Your task to perform on an android device: toggle data saver in the chrome app Image 0: 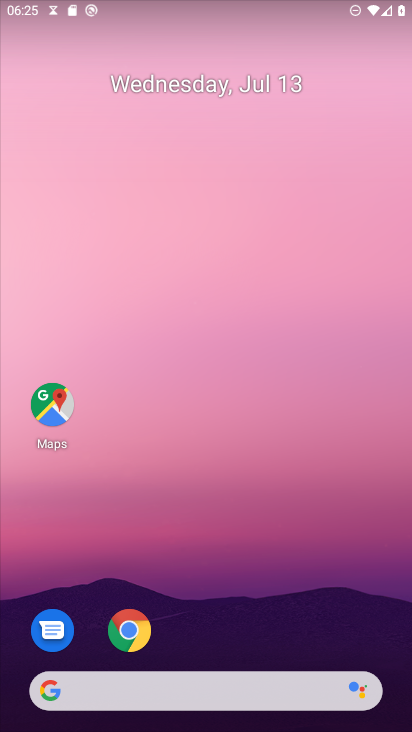
Step 0: drag from (329, 590) to (387, 45)
Your task to perform on an android device: toggle data saver in the chrome app Image 1: 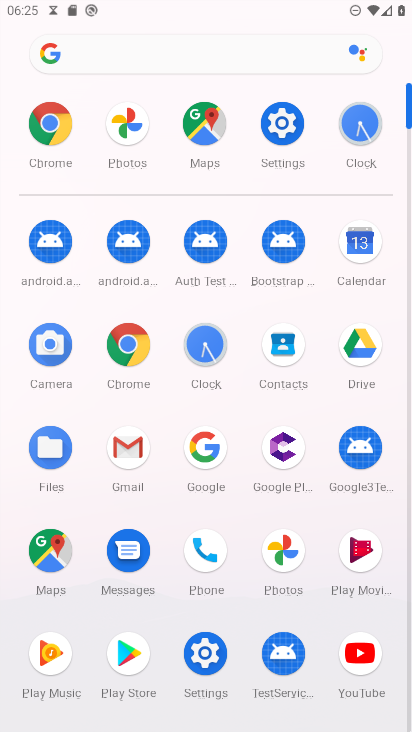
Step 1: click (140, 347)
Your task to perform on an android device: toggle data saver in the chrome app Image 2: 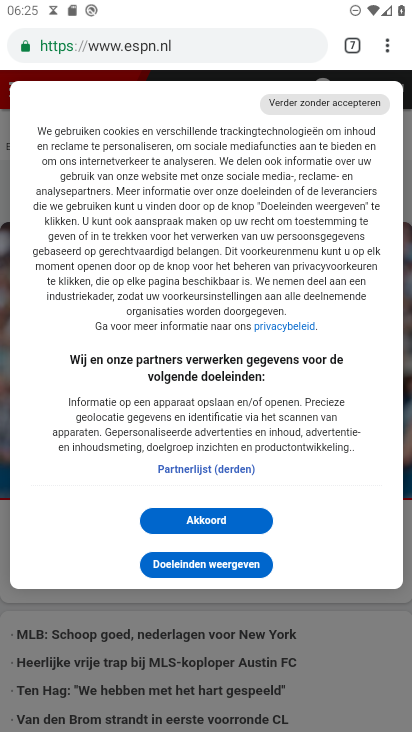
Step 2: drag from (389, 47) to (227, 546)
Your task to perform on an android device: toggle data saver in the chrome app Image 3: 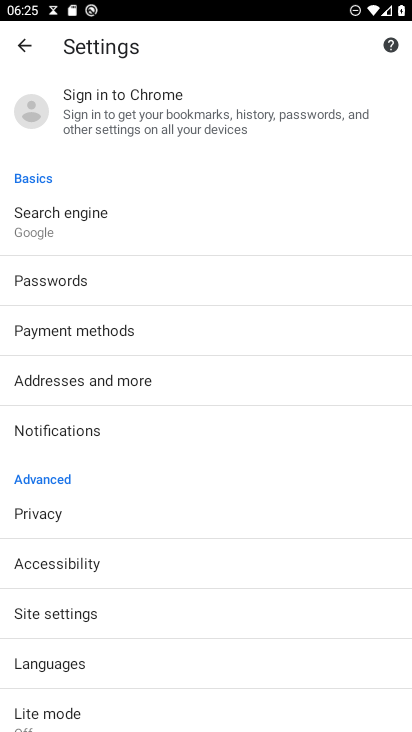
Step 3: drag from (93, 652) to (104, 443)
Your task to perform on an android device: toggle data saver in the chrome app Image 4: 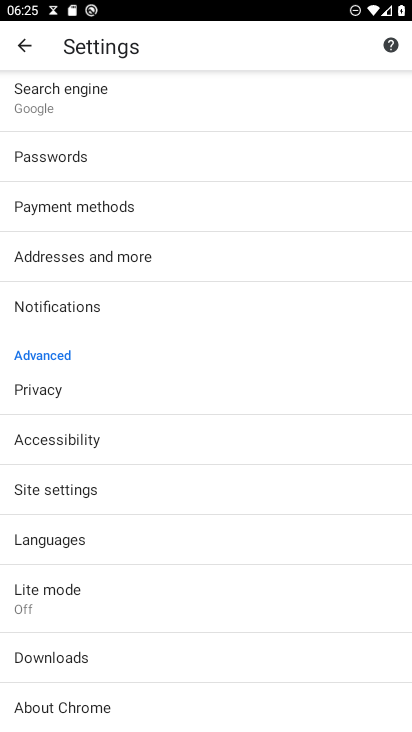
Step 4: click (74, 582)
Your task to perform on an android device: toggle data saver in the chrome app Image 5: 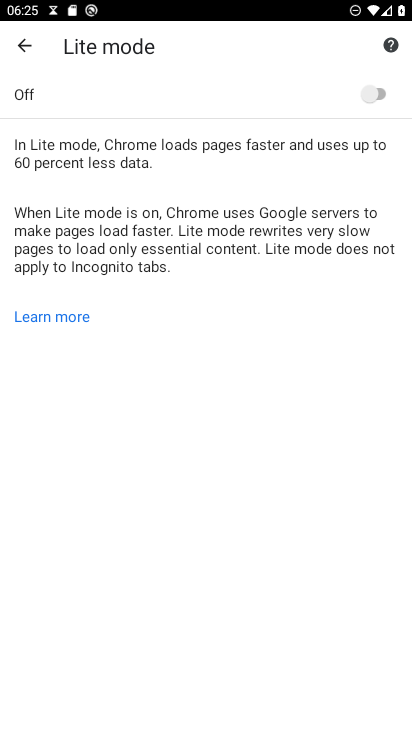
Step 5: click (378, 89)
Your task to perform on an android device: toggle data saver in the chrome app Image 6: 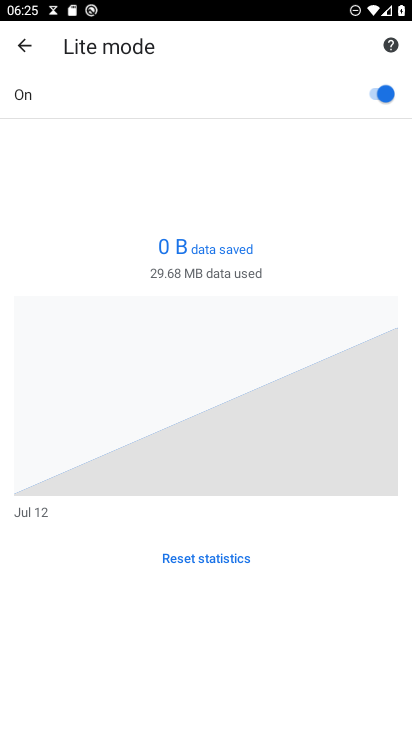
Step 6: task complete